Your task to perform on an android device: turn off location history Image 0: 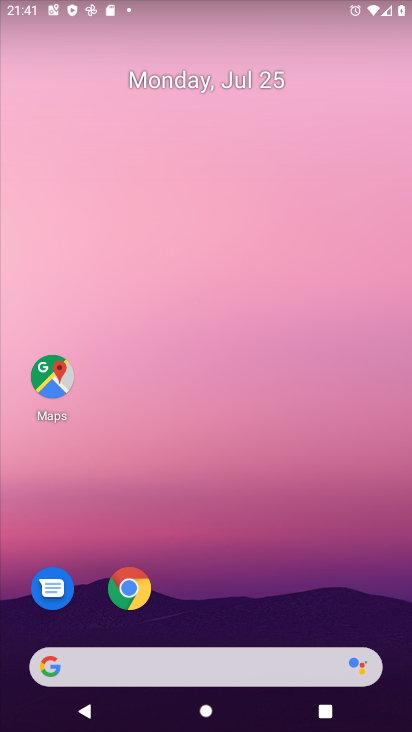
Step 0: drag from (194, 614) to (218, 251)
Your task to perform on an android device: turn off location history Image 1: 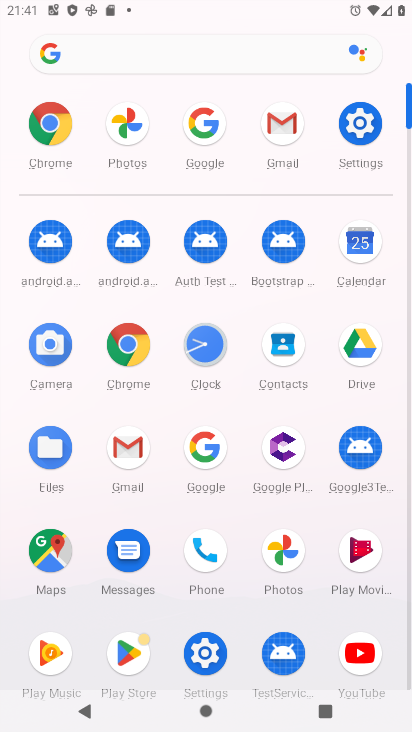
Step 1: click (362, 115)
Your task to perform on an android device: turn off location history Image 2: 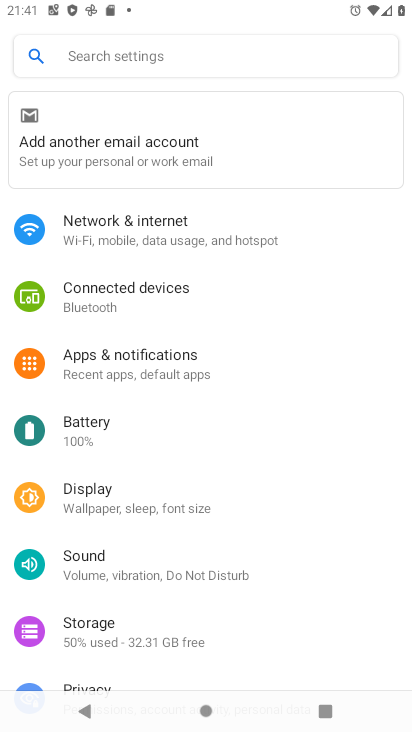
Step 2: drag from (174, 649) to (204, 281)
Your task to perform on an android device: turn off location history Image 3: 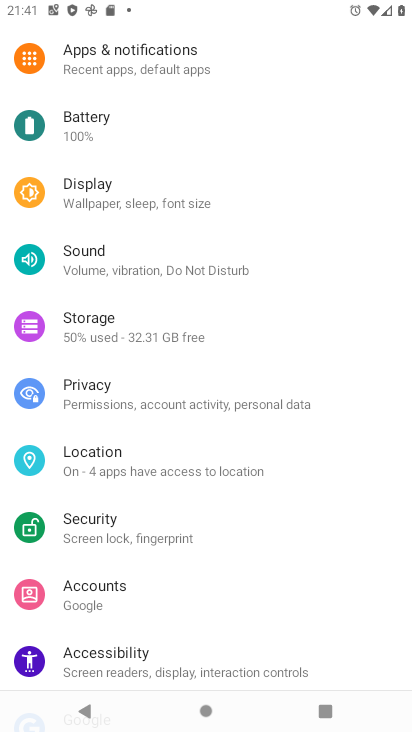
Step 3: click (145, 467)
Your task to perform on an android device: turn off location history Image 4: 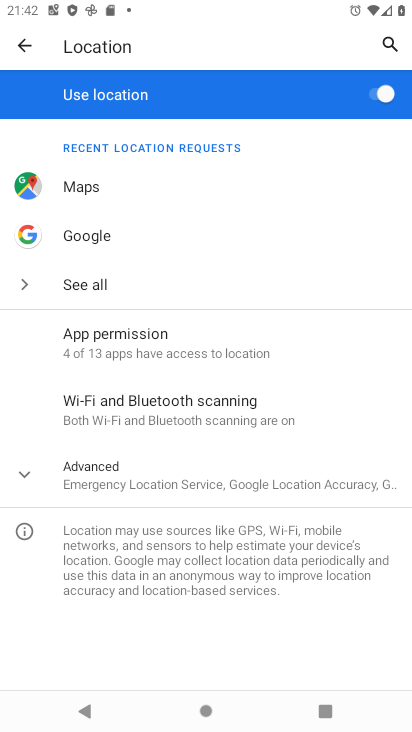
Step 4: click (114, 473)
Your task to perform on an android device: turn off location history Image 5: 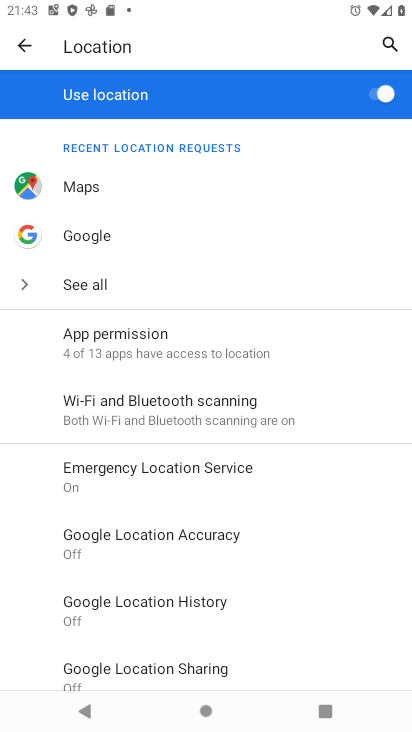
Step 5: click (166, 608)
Your task to perform on an android device: turn off location history Image 6: 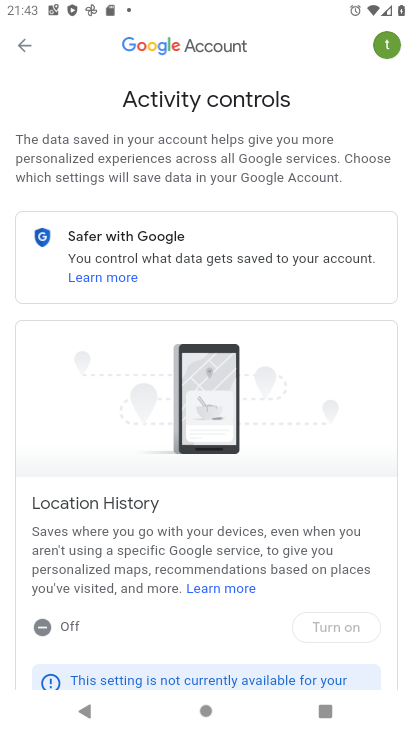
Step 6: task complete